Your task to perform on an android device: Clear the shopping cart on amazon. Add dell xps to the cart on amazon, then select checkout. Image 0: 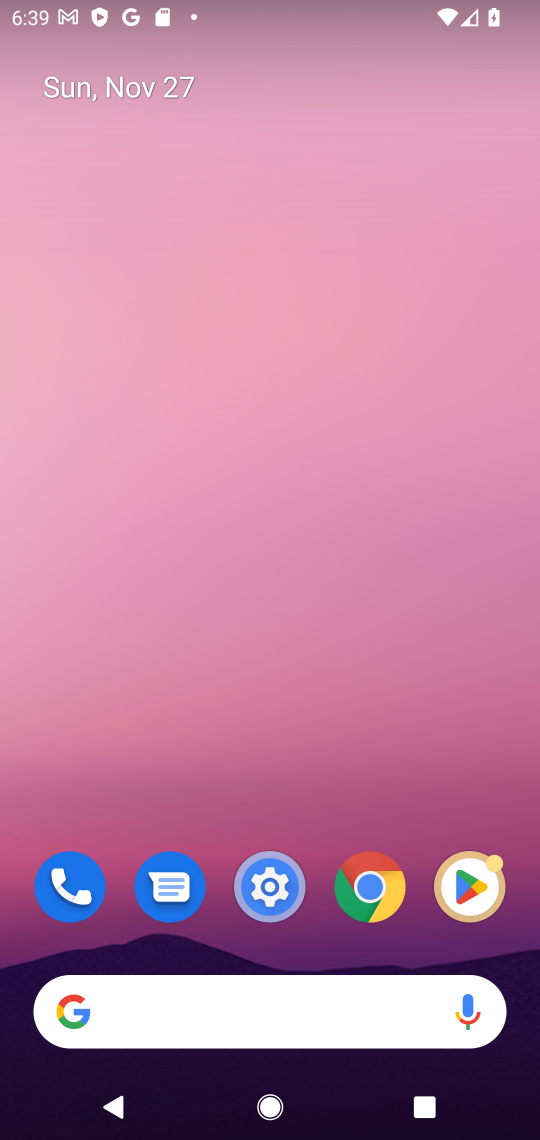
Step 0: press home button
Your task to perform on an android device: Clear the shopping cart on amazon. Add dell xps to the cart on amazon, then select checkout. Image 1: 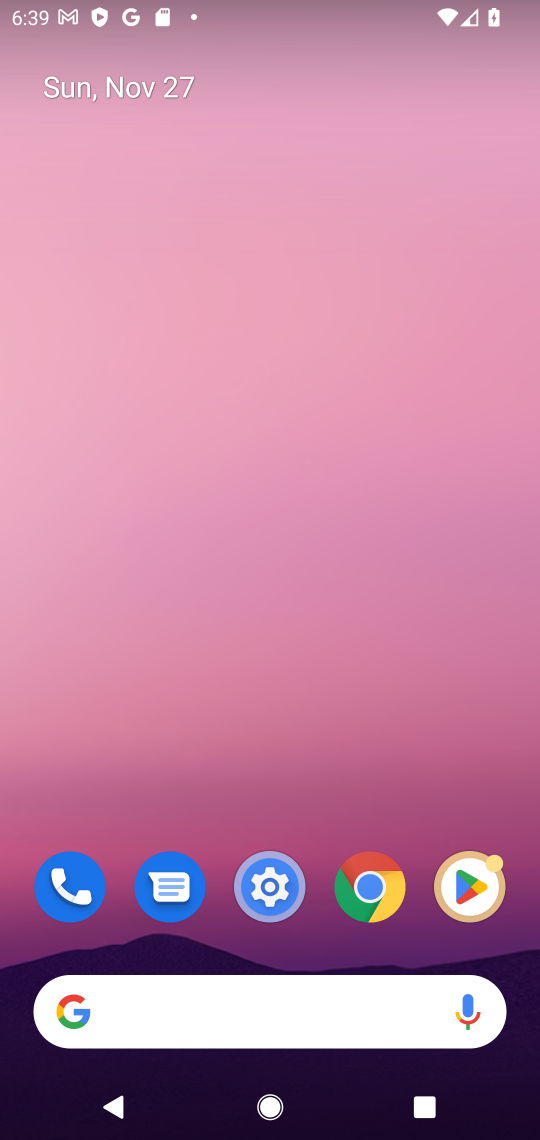
Step 1: click (279, 1021)
Your task to perform on an android device: Clear the shopping cart on amazon. Add dell xps to the cart on amazon, then select checkout. Image 2: 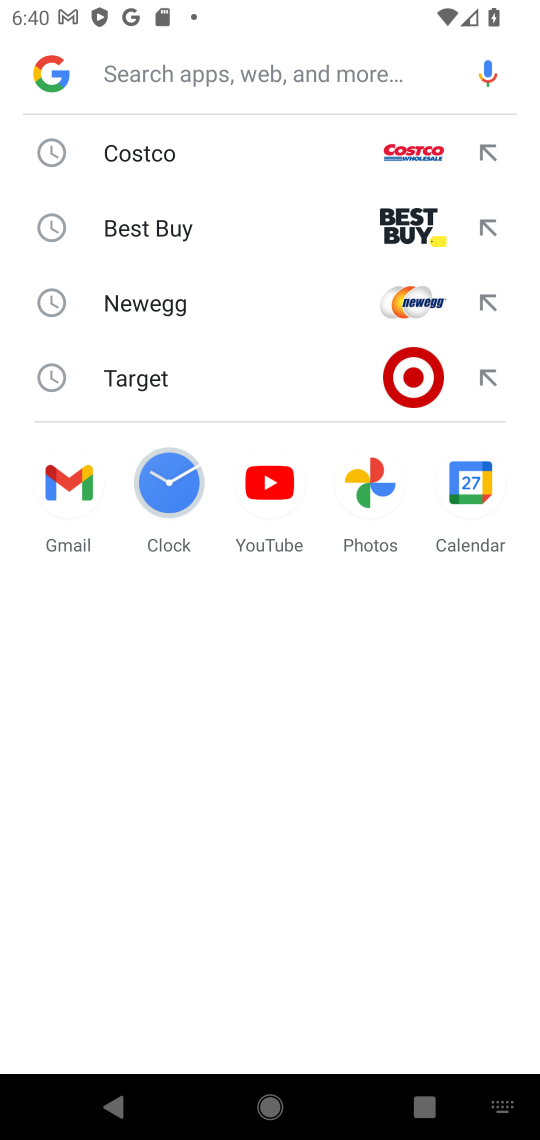
Step 2: type "amazon"
Your task to perform on an android device: Clear the shopping cart on amazon. Add dell xps to the cart on amazon, then select checkout. Image 3: 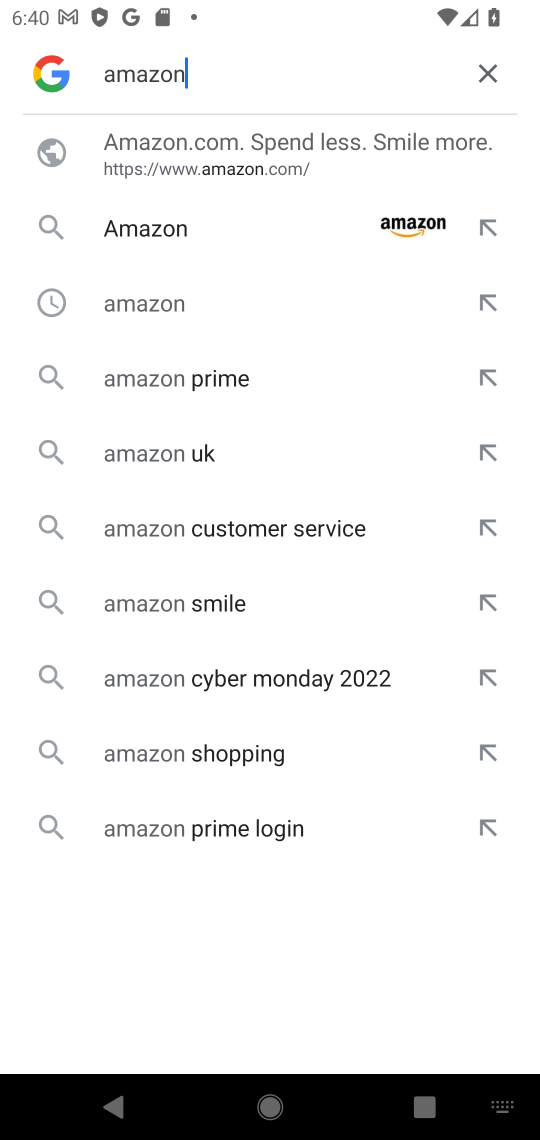
Step 3: click (260, 243)
Your task to perform on an android device: Clear the shopping cart on amazon. Add dell xps to the cart on amazon, then select checkout. Image 4: 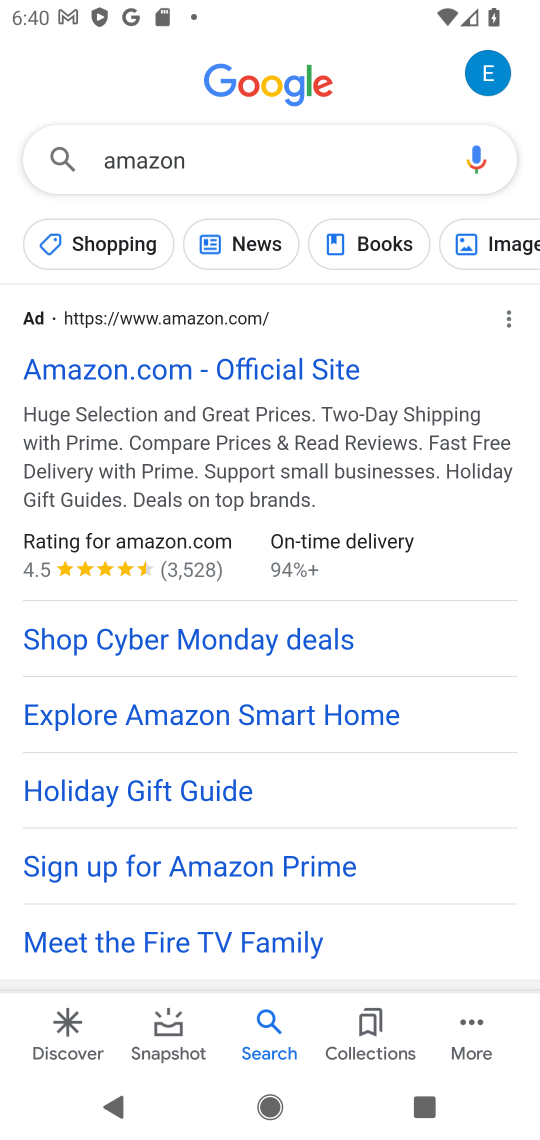
Step 4: click (260, 400)
Your task to perform on an android device: Clear the shopping cart on amazon. Add dell xps to the cart on amazon, then select checkout. Image 5: 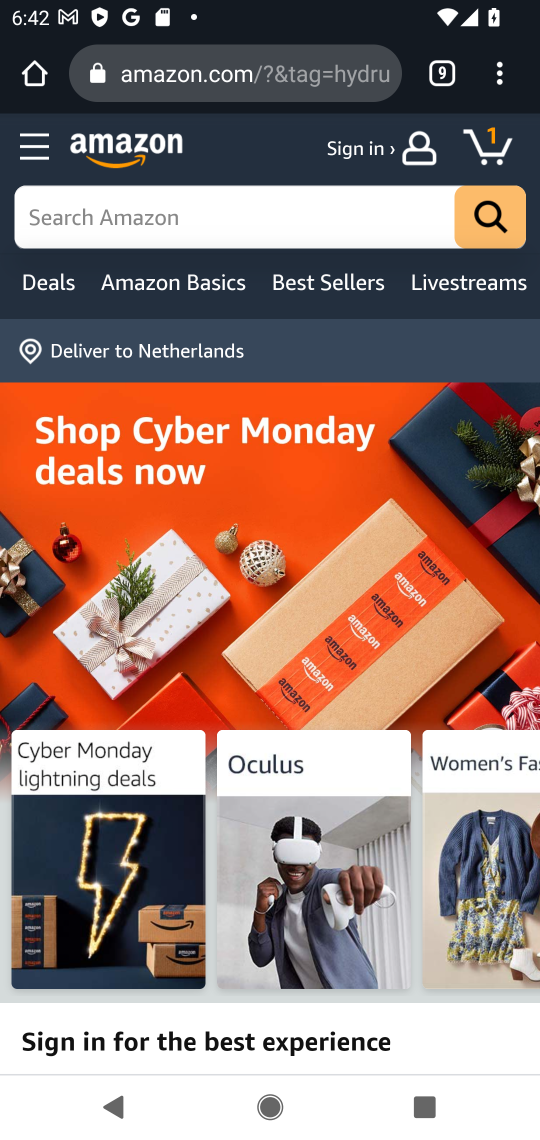
Step 5: task complete